Your task to perform on an android device: toggle sleep mode Image 0: 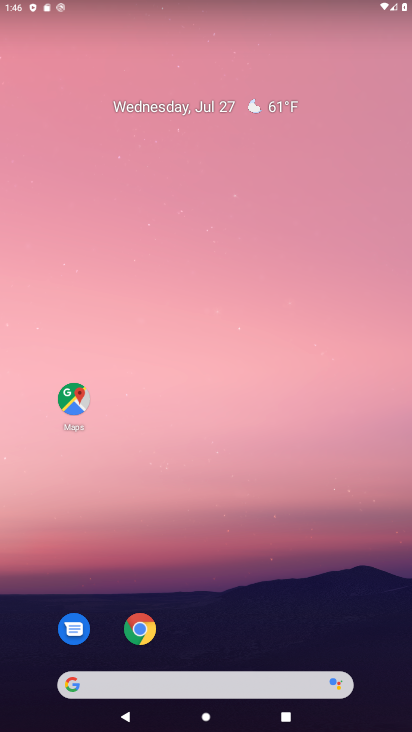
Step 0: press home button
Your task to perform on an android device: toggle sleep mode Image 1: 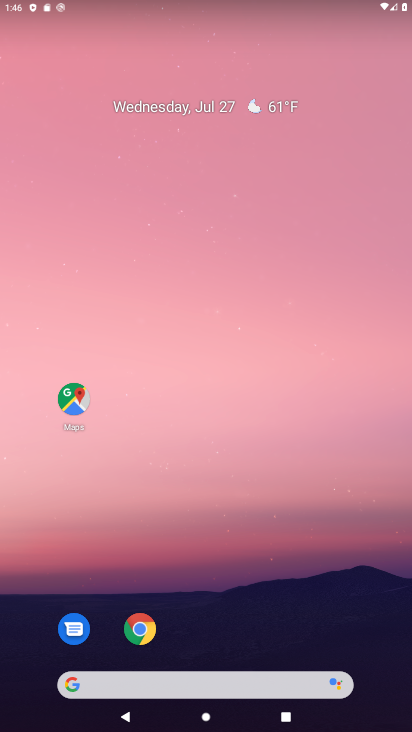
Step 1: drag from (168, 601) to (178, 204)
Your task to perform on an android device: toggle sleep mode Image 2: 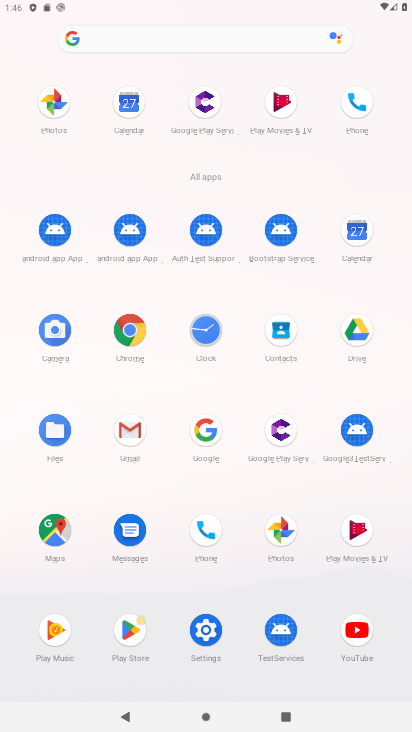
Step 2: click (207, 632)
Your task to perform on an android device: toggle sleep mode Image 3: 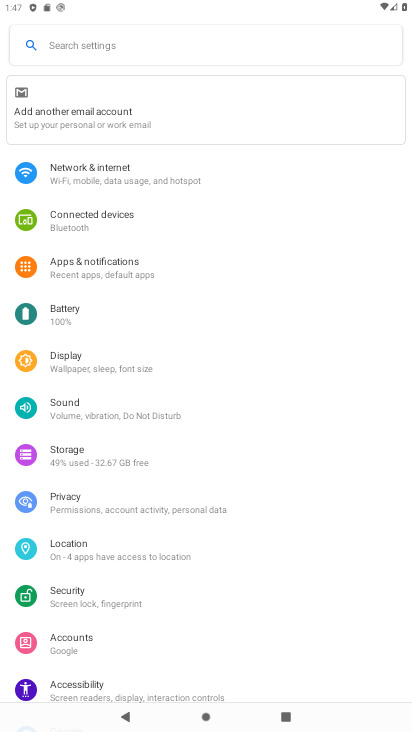
Step 3: click (110, 374)
Your task to perform on an android device: toggle sleep mode Image 4: 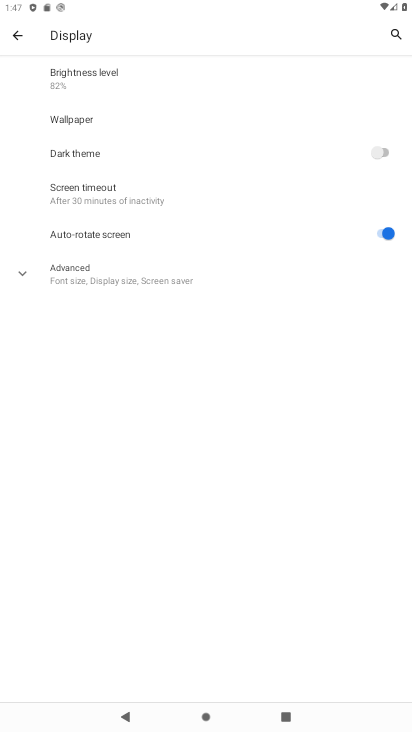
Step 4: click (87, 204)
Your task to perform on an android device: toggle sleep mode Image 5: 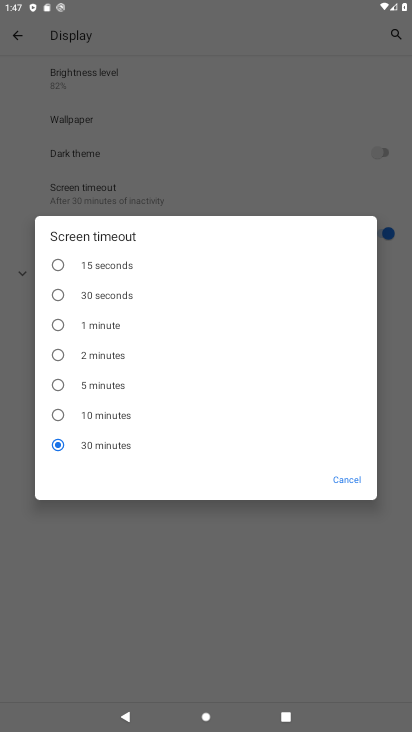
Step 5: click (354, 482)
Your task to perform on an android device: toggle sleep mode Image 6: 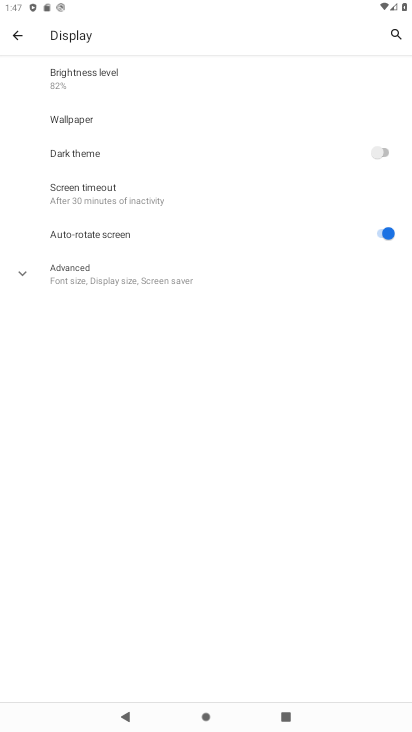
Step 6: task complete